Your task to perform on an android device: set the stopwatch Image 0: 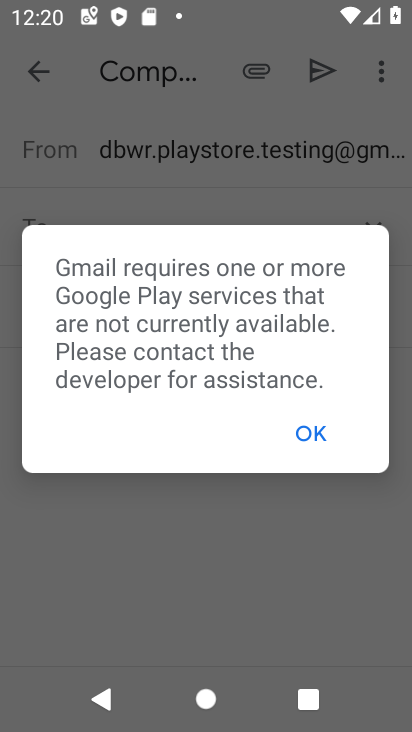
Step 0: press home button
Your task to perform on an android device: set the stopwatch Image 1: 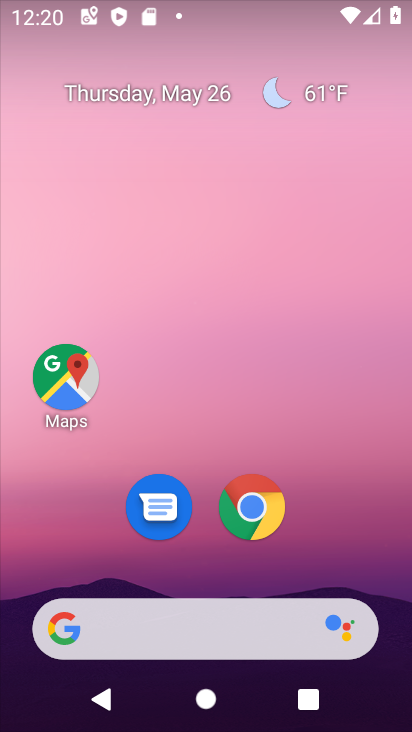
Step 1: drag from (349, 514) to (272, 154)
Your task to perform on an android device: set the stopwatch Image 2: 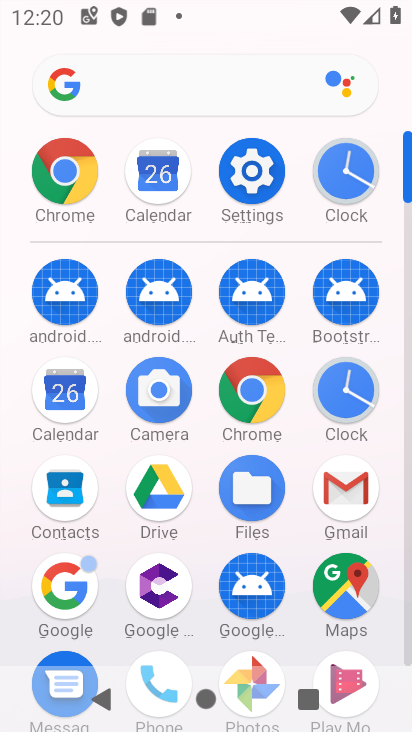
Step 2: click (349, 222)
Your task to perform on an android device: set the stopwatch Image 3: 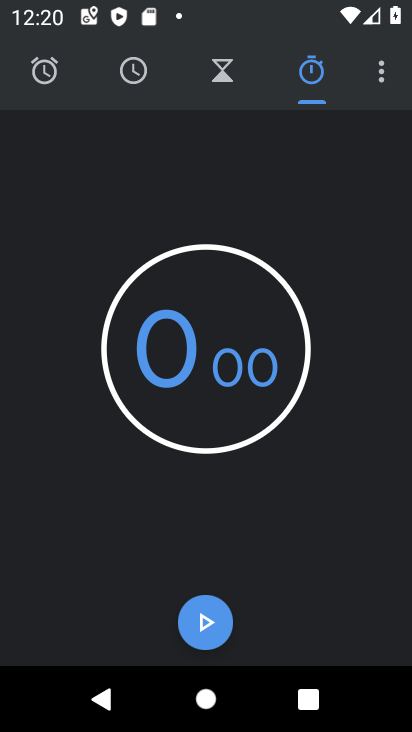
Step 3: task complete